Your task to perform on an android device: Open wifi settings Image 0: 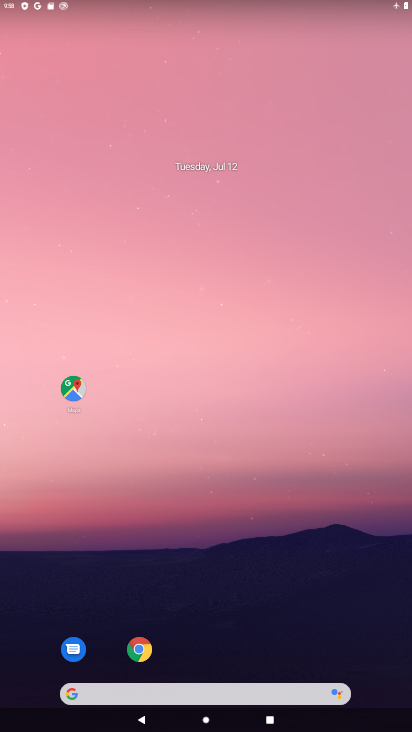
Step 0: drag from (300, 633) to (165, 175)
Your task to perform on an android device: Open wifi settings Image 1: 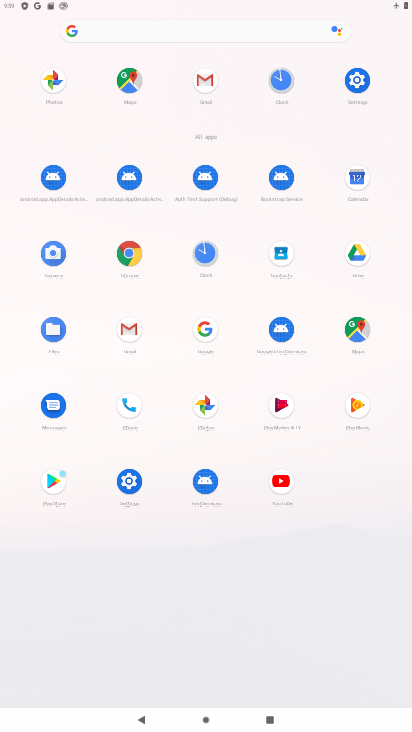
Step 1: click (356, 82)
Your task to perform on an android device: Open wifi settings Image 2: 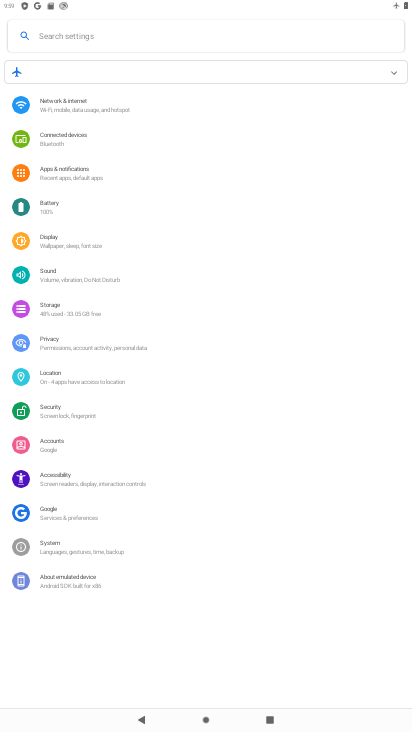
Step 2: click (156, 108)
Your task to perform on an android device: Open wifi settings Image 3: 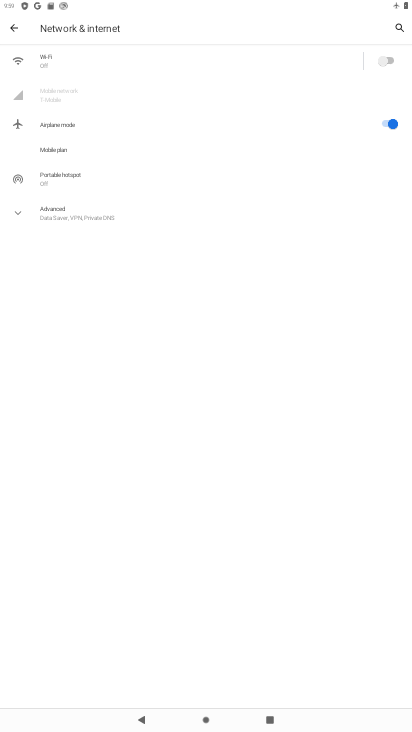
Step 3: click (233, 68)
Your task to perform on an android device: Open wifi settings Image 4: 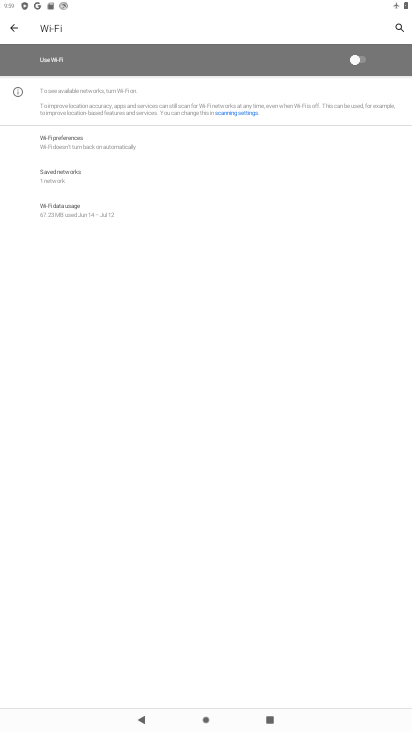
Step 4: task complete